Your task to perform on an android device: uninstall "Mercado Libre" Image 0: 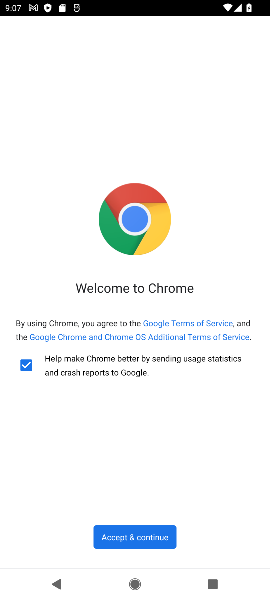
Step 0: press back button
Your task to perform on an android device: uninstall "Mercado Libre" Image 1: 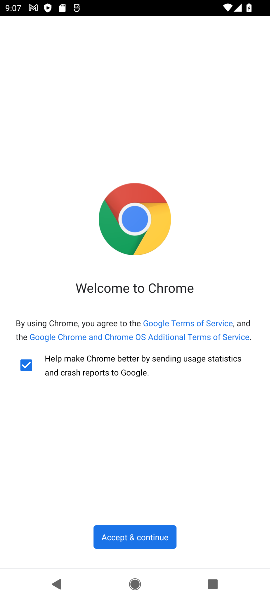
Step 1: press back button
Your task to perform on an android device: uninstall "Mercado Libre" Image 2: 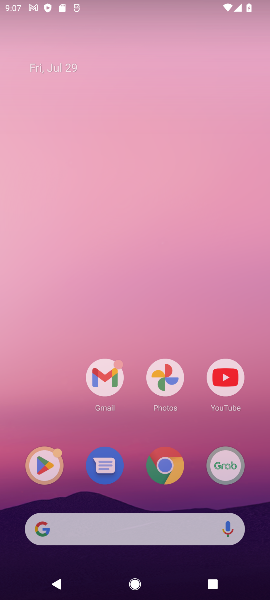
Step 2: press back button
Your task to perform on an android device: uninstall "Mercado Libre" Image 3: 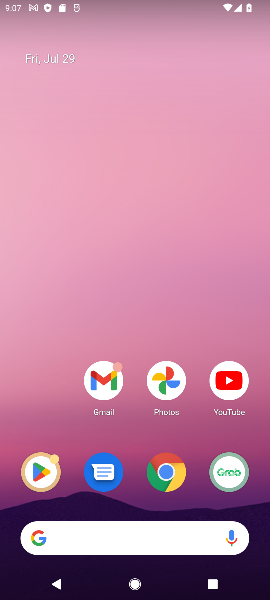
Step 3: drag from (193, 520) to (112, 157)
Your task to perform on an android device: uninstall "Mercado Libre" Image 4: 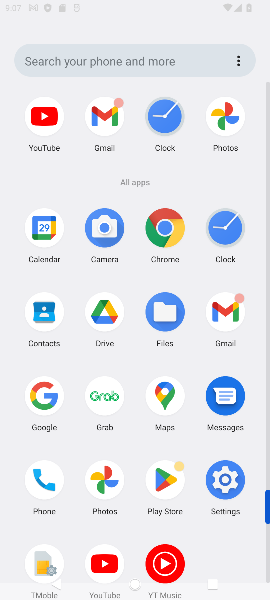
Step 4: drag from (171, 391) to (77, 29)
Your task to perform on an android device: uninstall "Mercado Libre" Image 5: 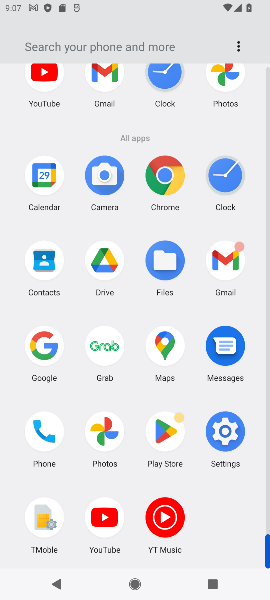
Step 5: drag from (144, 325) to (116, 168)
Your task to perform on an android device: uninstall "Mercado Libre" Image 6: 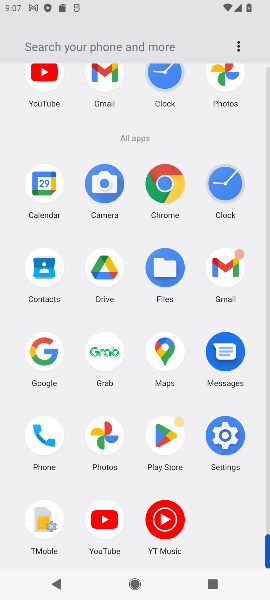
Step 6: click (160, 437)
Your task to perform on an android device: uninstall "Mercado Libre" Image 7: 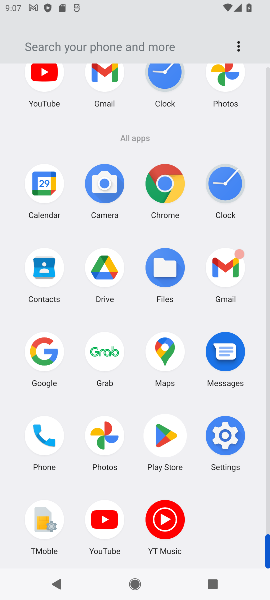
Step 7: click (160, 437)
Your task to perform on an android device: uninstall "Mercado Libre" Image 8: 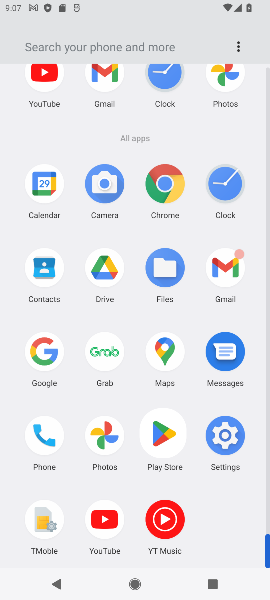
Step 8: click (161, 437)
Your task to perform on an android device: uninstall "Mercado Libre" Image 9: 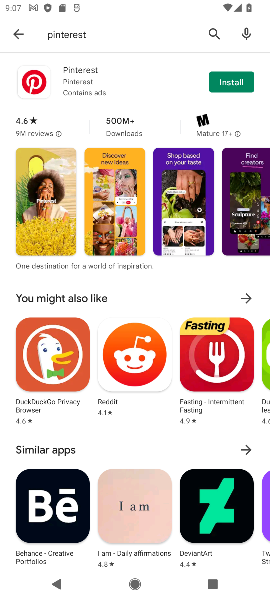
Step 9: click (21, 32)
Your task to perform on an android device: uninstall "Mercado Libre" Image 10: 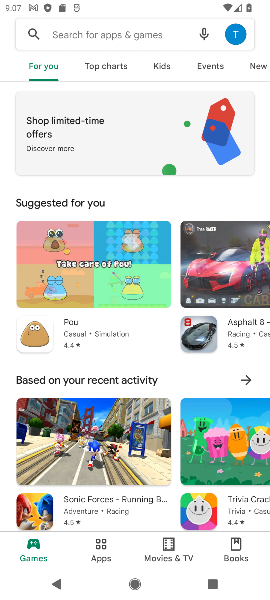
Step 10: click (60, 27)
Your task to perform on an android device: uninstall "Mercado Libre" Image 11: 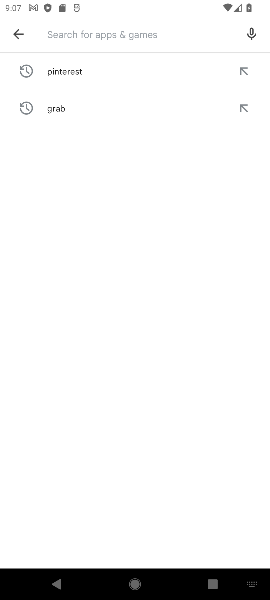
Step 11: type "mercado libre"
Your task to perform on an android device: uninstall "Mercado Libre" Image 12: 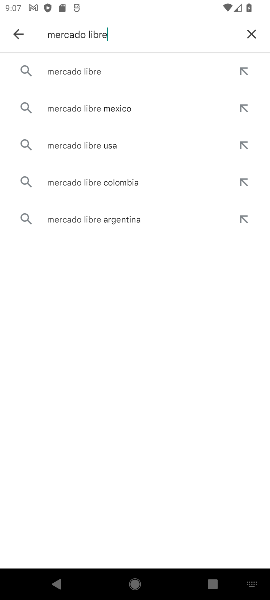
Step 12: click (240, 68)
Your task to perform on an android device: uninstall "Mercado Libre" Image 13: 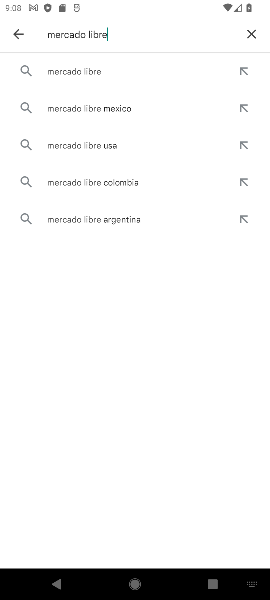
Step 13: click (65, 69)
Your task to perform on an android device: uninstall "Mercado Libre" Image 14: 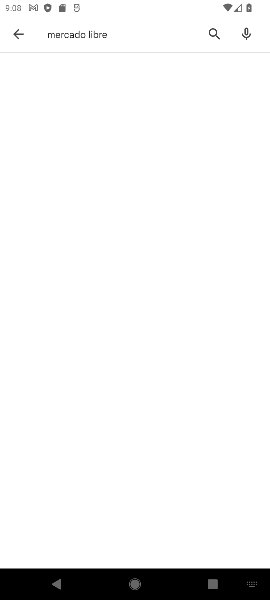
Step 14: click (67, 70)
Your task to perform on an android device: uninstall "Mercado Libre" Image 15: 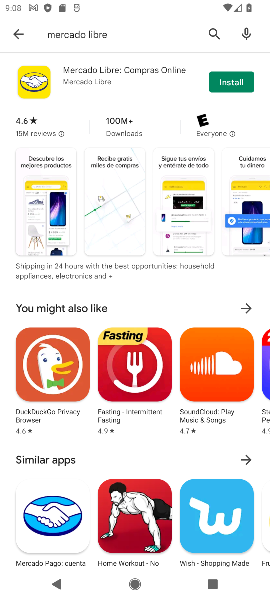
Step 15: task complete